Your task to perform on an android device: set default search engine in the chrome app Image 0: 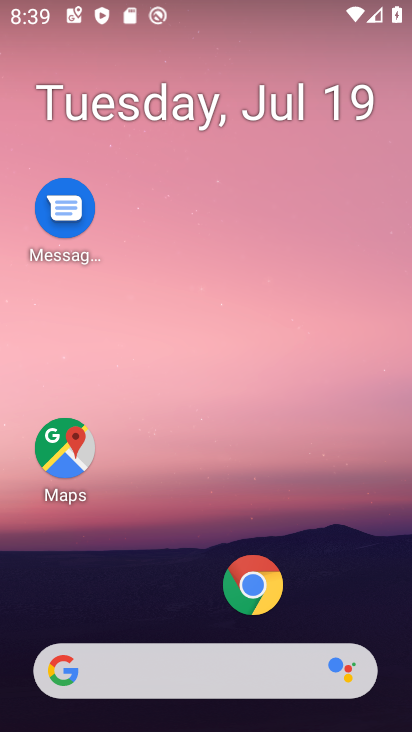
Step 0: click (260, 585)
Your task to perform on an android device: set default search engine in the chrome app Image 1: 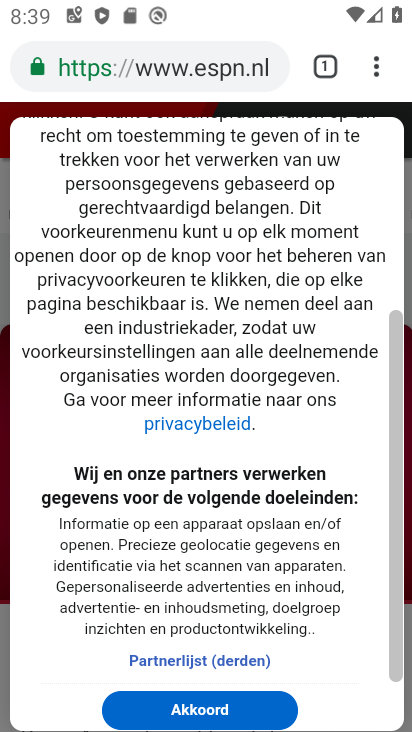
Step 1: click (388, 78)
Your task to perform on an android device: set default search engine in the chrome app Image 2: 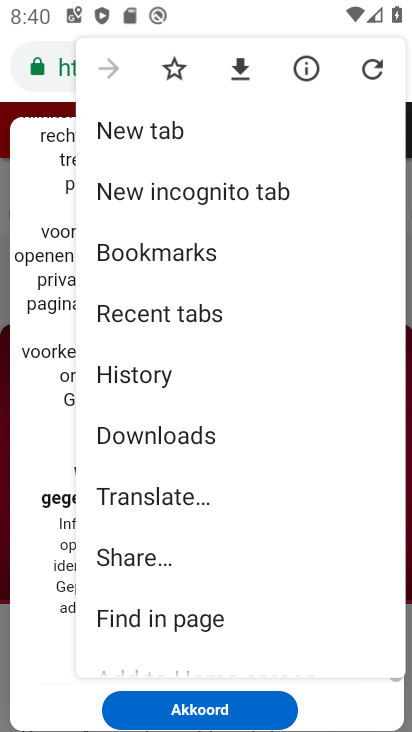
Step 2: drag from (191, 532) to (158, 160)
Your task to perform on an android device: set default search engine in the chrome app Image 3: 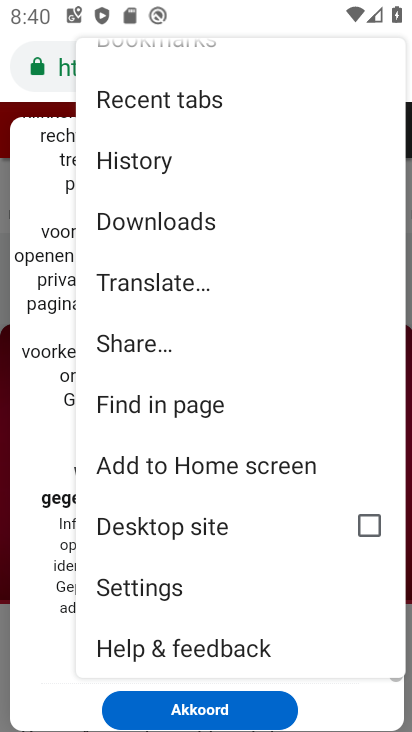
Step 3: click (155, 573)
Your task to perform on an android device: set default search engine in the chrome app Image 4: 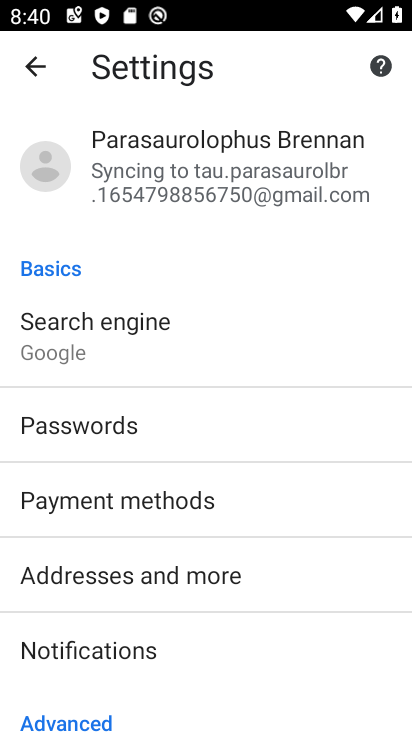
Step 4: click (84, 372)
Your task to perform on an android device: set default search engine in the chrome app Image 5: 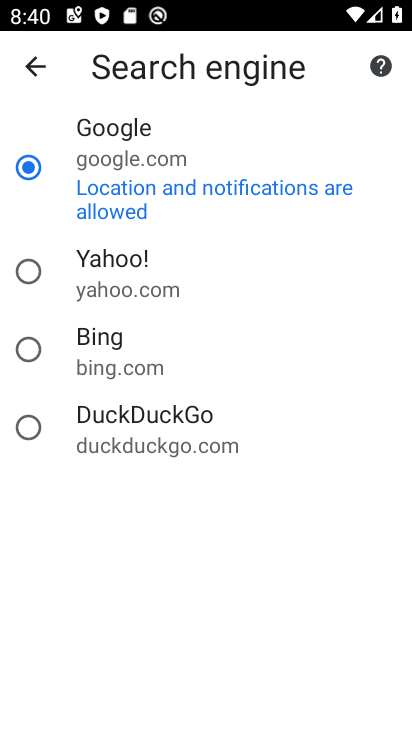
Step 5: click (26, 156)
Your task to perform on an android device: set default search engine in the chrome app Image 6: 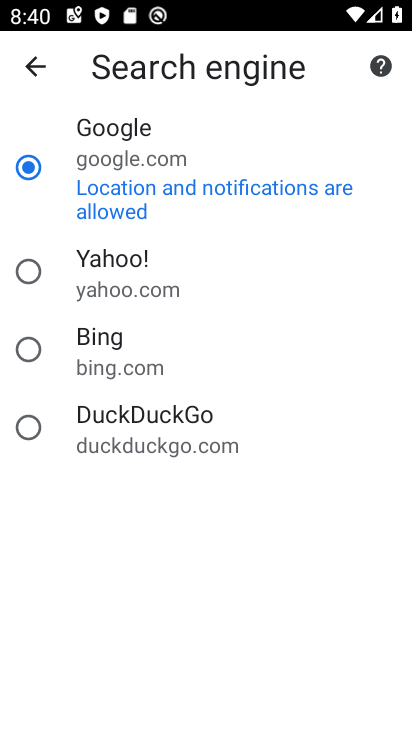
Step 6: task complete